Your task to perform on an android device: Turn off the flashlight Image 0: 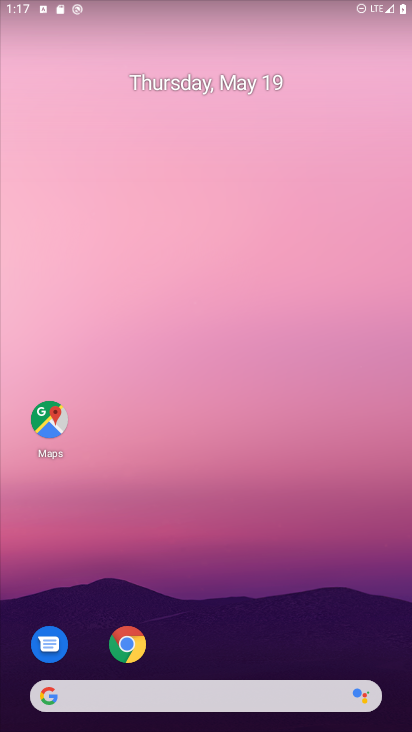
Step 0: drag from (367, 625) to (238, 117)
Your task to perform on an android device: Turn off the flashlight Image 1: 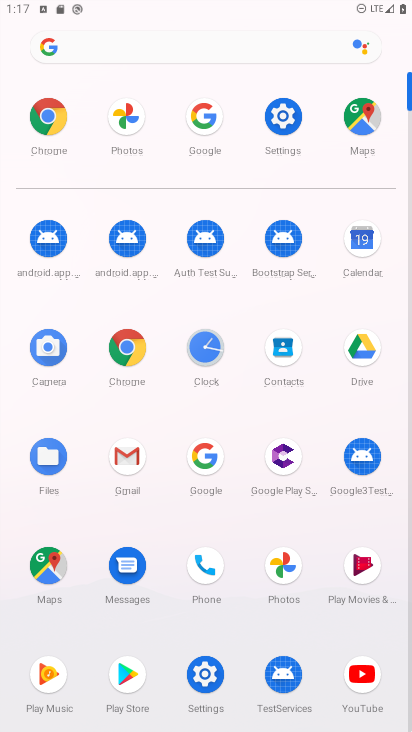
Step 1: click (282, 125)
Your task to perform on an android device: Turn off the flashlight Image 2: 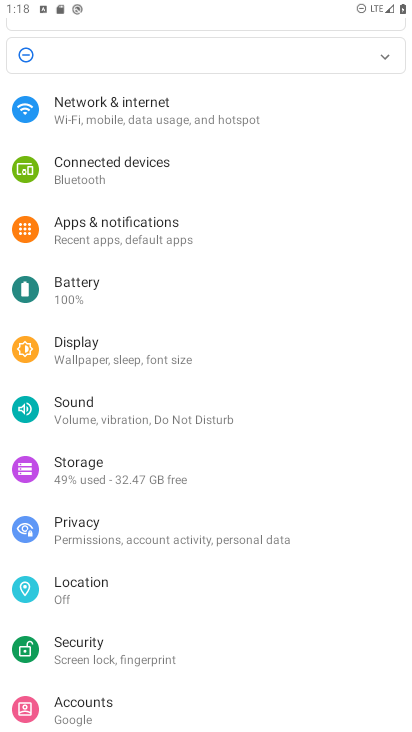
Step 2: task complete